Your task to perform on an android device: Open calendar and show me the fourth week of next month Image 0: 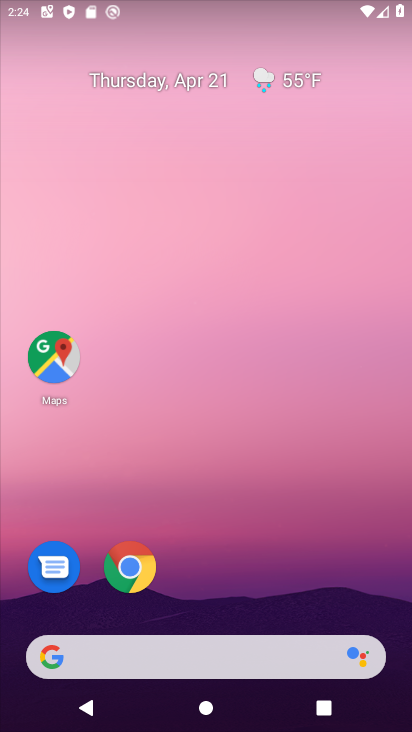
Step 0: drag from (302, 500) to (295, 103)
Your task to perform on an android device: Open calendar and show me the fourth week of next month Image 1: 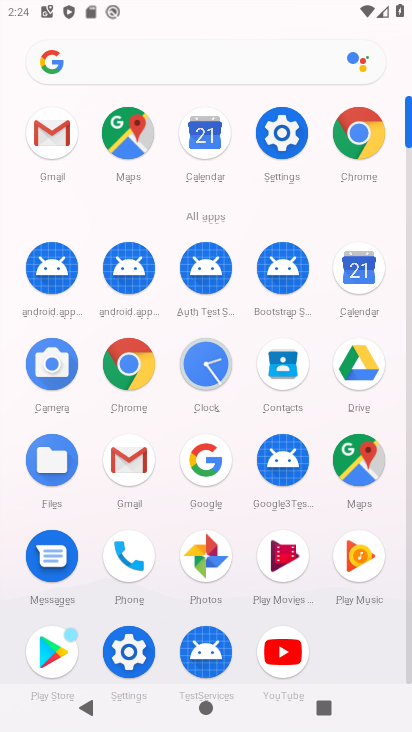
Step 1: click (204, 141)
Your task to perform on an android device: Open calendar and show me the fourth week of next month Image 2: 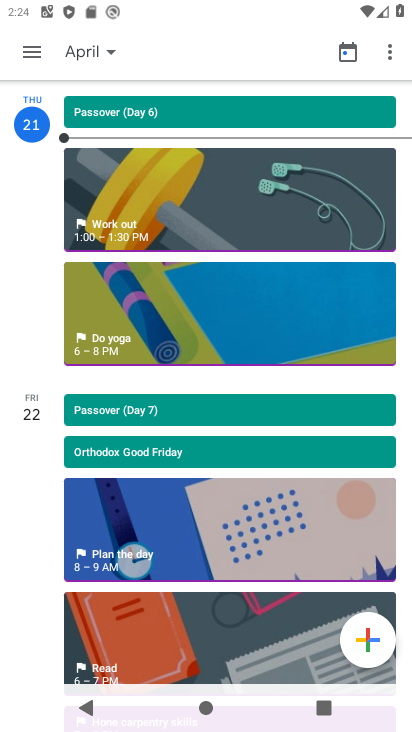
Step 2: click (105, 49)
Your task to perform on an android device: Open calendar and show me the fourth week of next month Image 3: 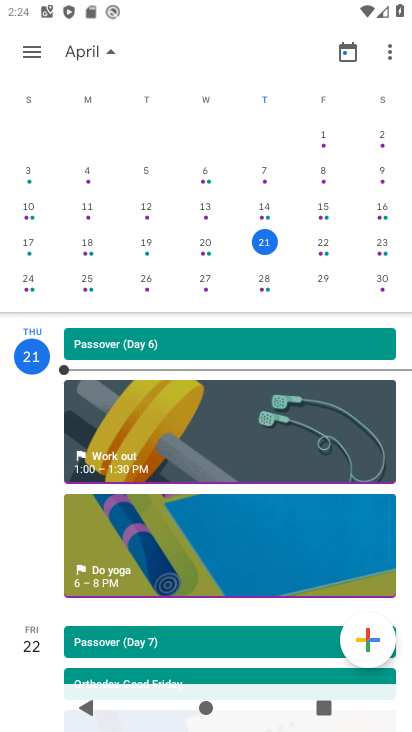
Step 3: drag from (183, 186) to (26, 188)
Your task to perform on an android device: Open calendar and show me the fourth week of next month Image 4: 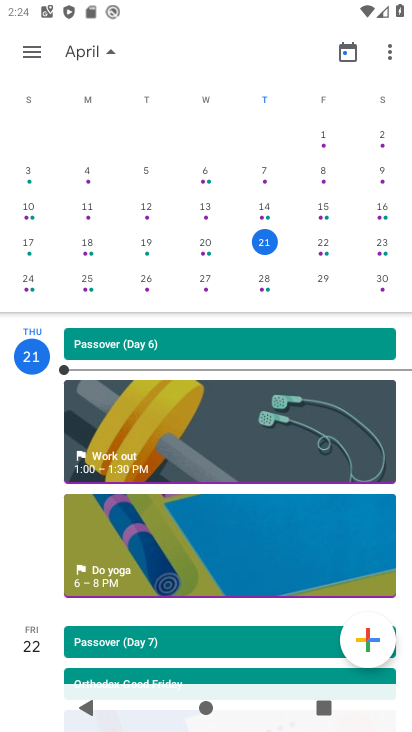
Step 4: drag from (387, 197) to (17, 172)
Your task to perform on an android device: Open calendar and show me the fourth week of next month Image 5: 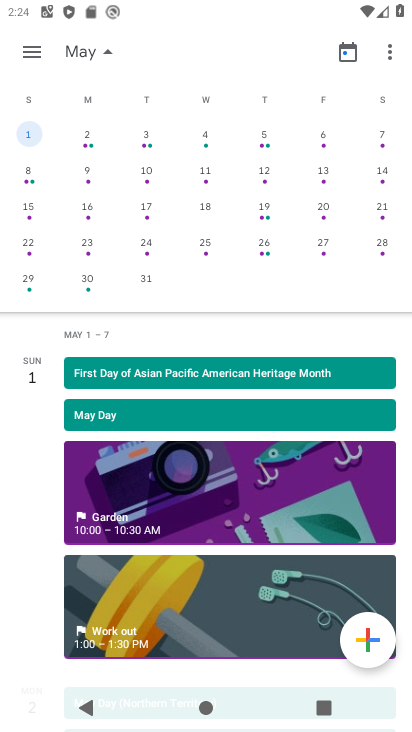
Step 5: click (203, 241)
Your task to perform on an android device: Open calendar and show me the fourth week of next month Image 6: 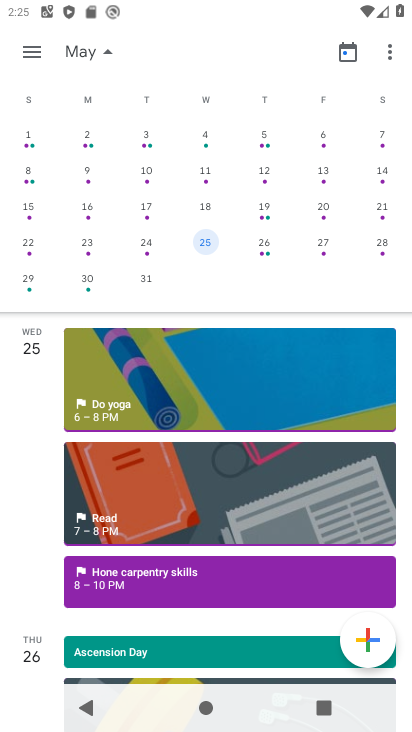
Step 6: task complete